Your task to perform on an android device: When is my next meeting? Image 0: 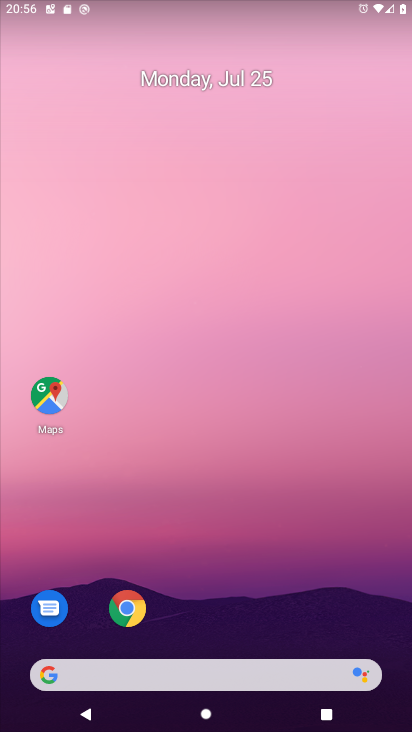
Step 0: drag from (336, 604) to (336, 247)
Your task to perform on an android device: When is my next meeting? Image 1: 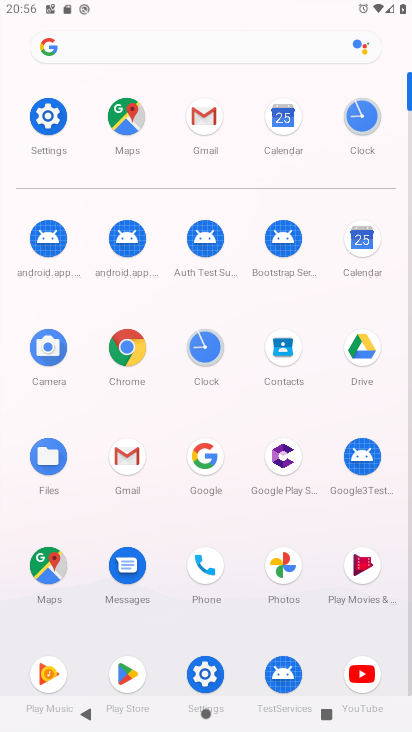
Step 1: click (376, 248)
Your task to perform on an android device: When is my next meeting? Image 2: 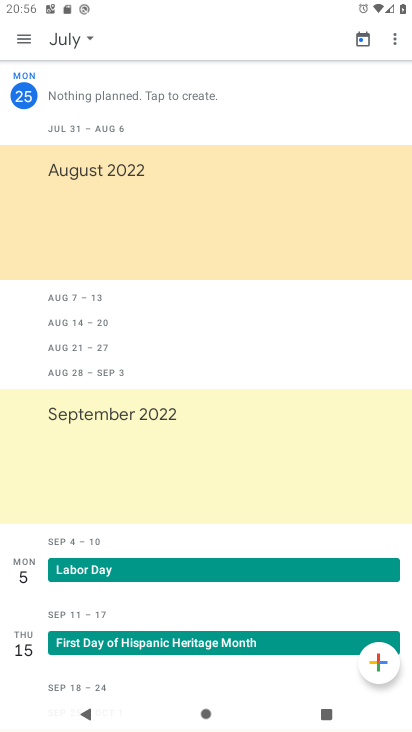
Step 2: click (79, 33)
Your task to perform on an android device: When is my next meeting? Image 3: 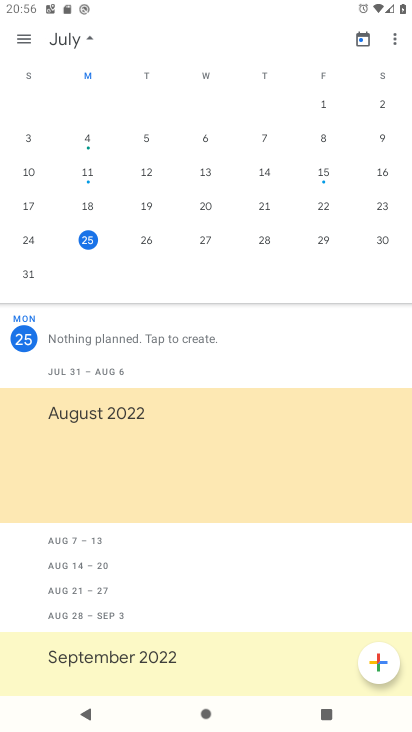
Step 3: click (84, 237)
Your task to perform on an android device: When is my next meeting? Image 4: 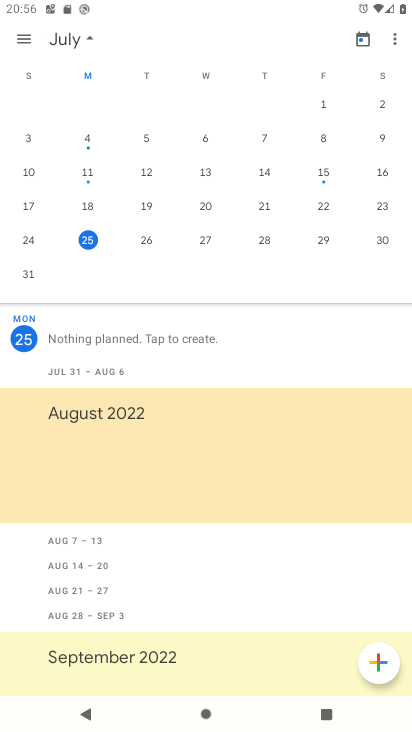
Step 4: task complete